Your task to perform on an android device: toggle airplane mode Image 0: 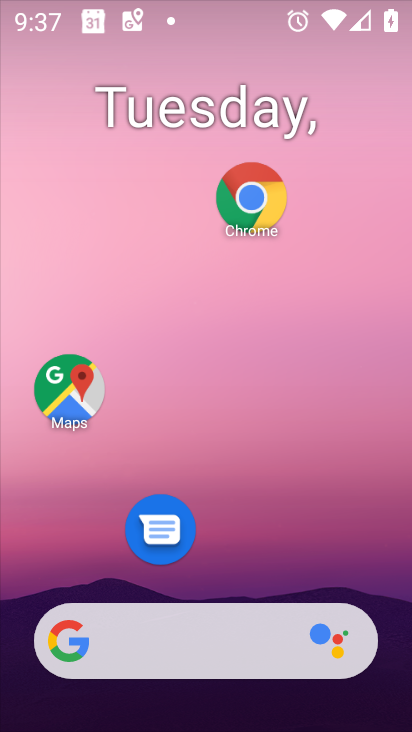
Step 0: drag from (386, 519) to (355, 28)
Your task to perform on an android device: toggle airplane mode Image 1: 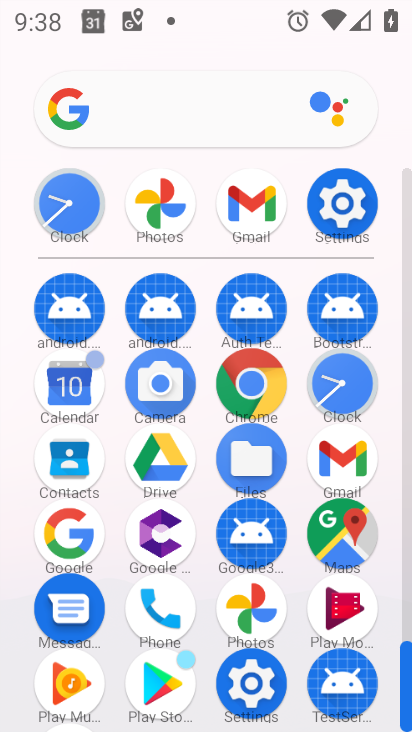
Step 1: click (351, 215)
Your task to perform on an android device: toggle airplane mode Image 2: 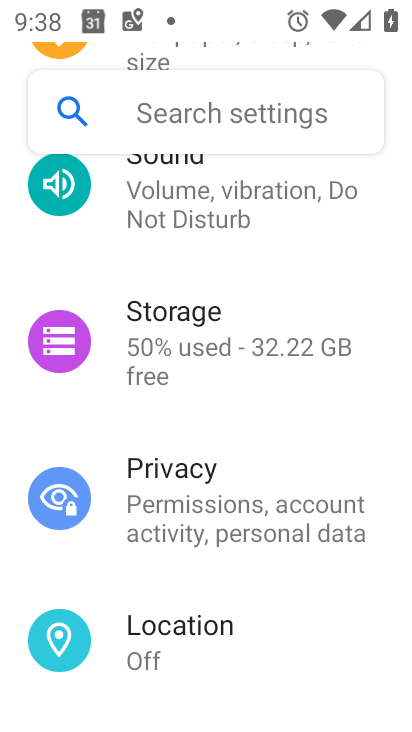
Step 2: drag from (211, 245) to (193, 720)
Your task to perform on an android device: toggle airplane mode Image 3: 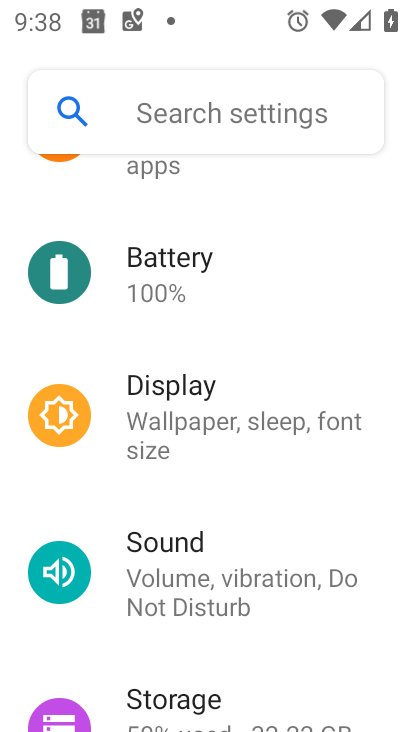
Step 3: drag from (223, 355) to (236, 641)
Your task to perform on an android device: toggle airplane mode Image 4: 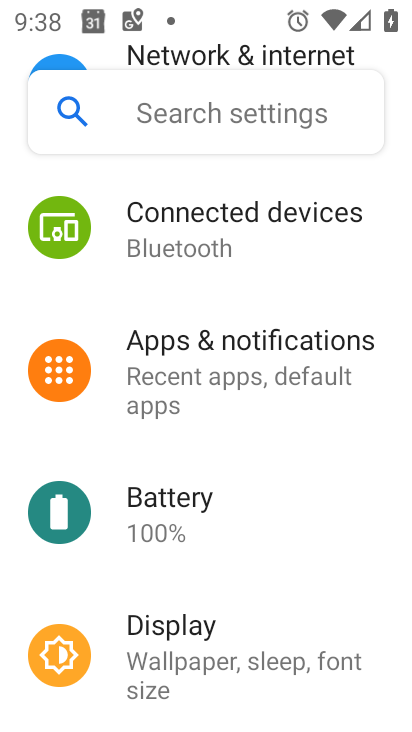
Step 4: drag from (296, 292) to (210, 682)
Your task to perform on an android device: toggle airplane mode Image 5: 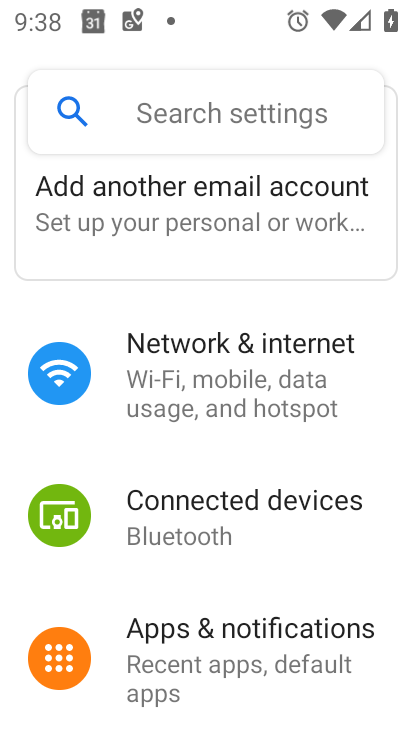
Step 5: click (220, 369)
Your task to perform on an android device: toggle airplane mode Image 6: 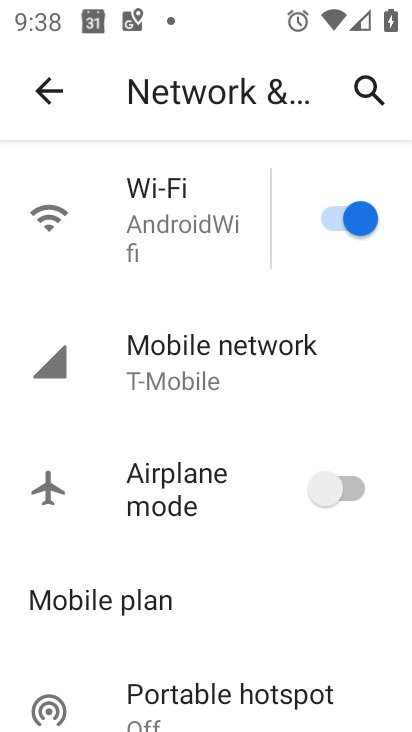
Step 6: click (302, 475)
Your task to perform on an android device: toggle airplane mode Image 7: 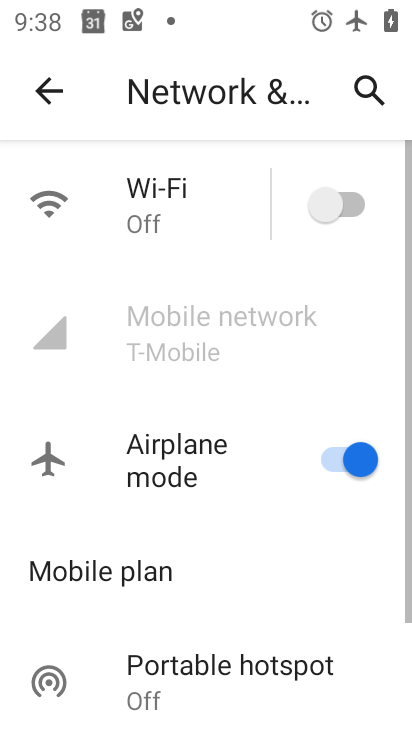
Step 7: task complete